Your task to perform on an android device: Open settings Image 0: 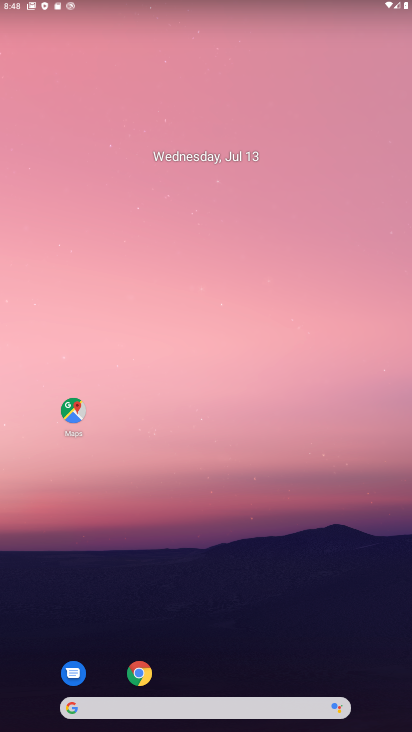
Step 0: drag from (289, 611) to (204, 46)
Your task to perform on an android device: Open settings Image 1: 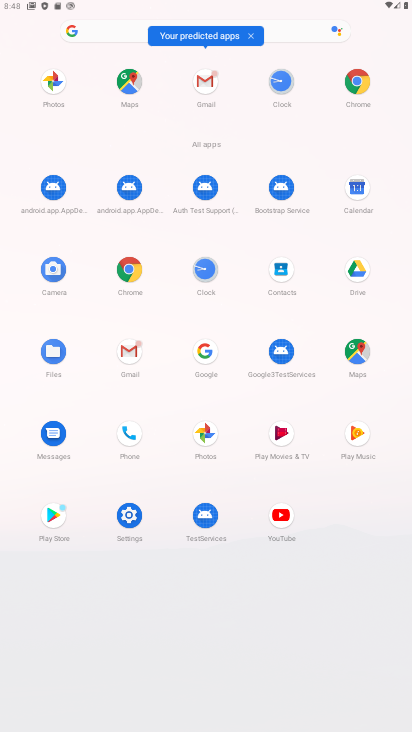
Step 1: click (126, 518)
Your task to perform on an android device: Open settings Image 2: 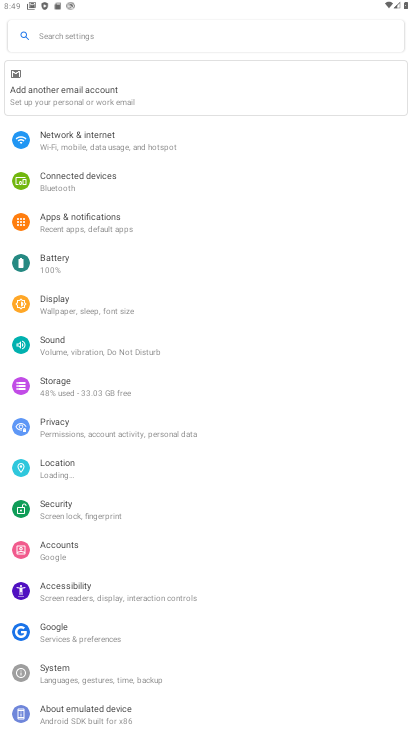
Step 2: task complete